Your task to perform on an android device: star an email in the gmail app Image 0: 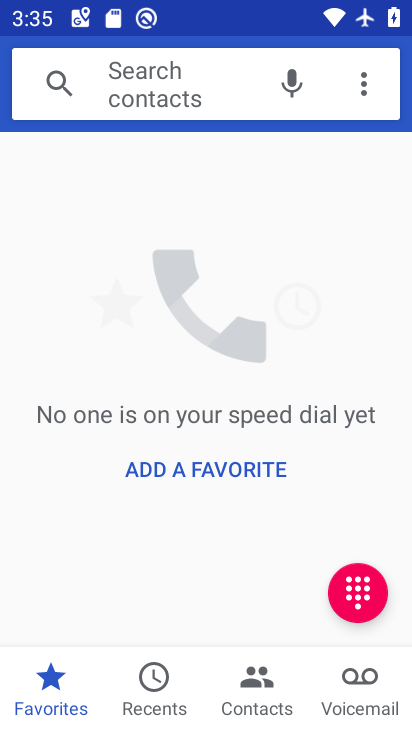
Step 0: press home button
Your task to perform on an android device: star an email in the gmail app Image 1: 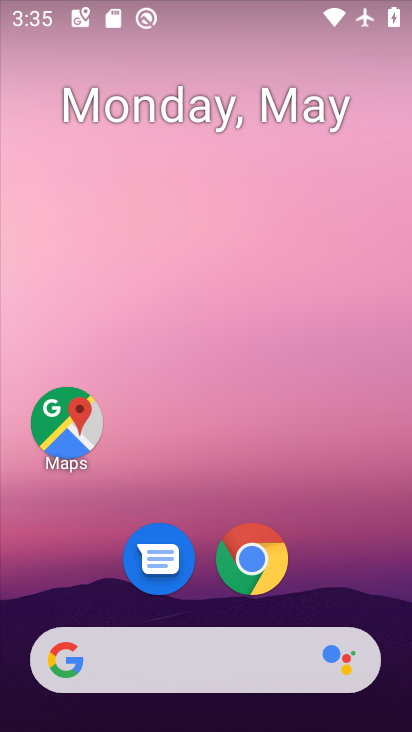
Step 1: drag from (297, 597) to (287, 148)
Your task to perform on an android device: star an email in the gmail app Image 2: 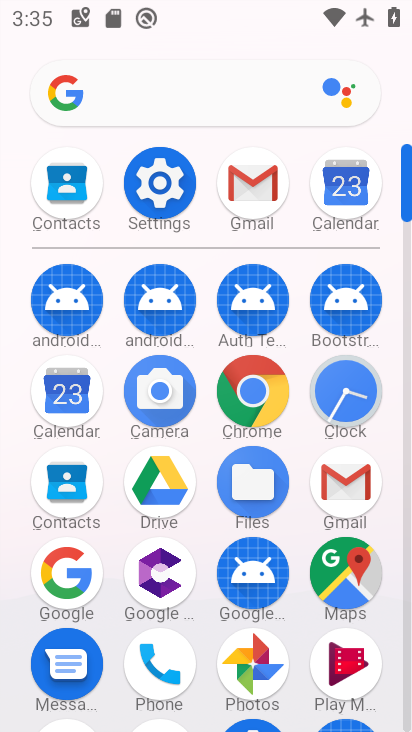
Step 2: click (348, 479)
Your task to perform on an android device: star an email in the gmail app Image 3: 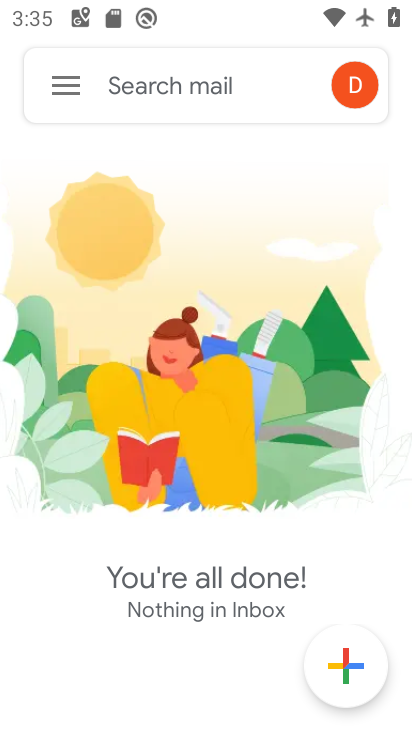
Step 3: click (69, 90)
Your task to perform on an android device: star an email in the gmail app Image 4: 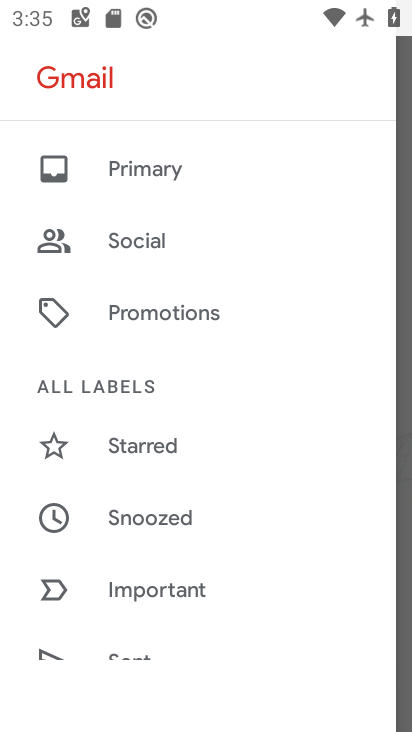
Step 4: drag from (234, 206) to (228, 542)
Your task to perform on an android device: star an email in the gmail app Image 5: 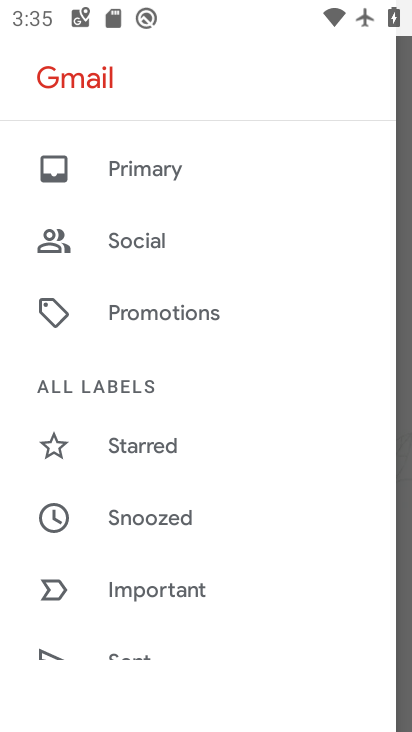
Step 5: drag from (190, 569) to (228, 287)
Your task to perform on an android device: star an email in the gmail app Image 6: 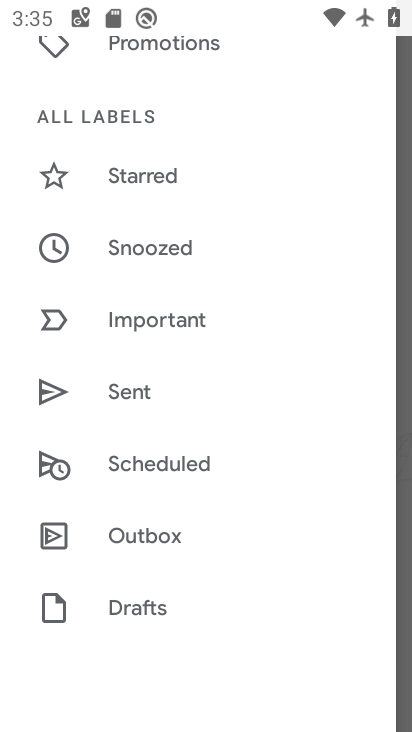
Step 6: drag from (181, 542) to (222, 233)
Your task to perform on an android device: star an email in the gmail app Image 7: 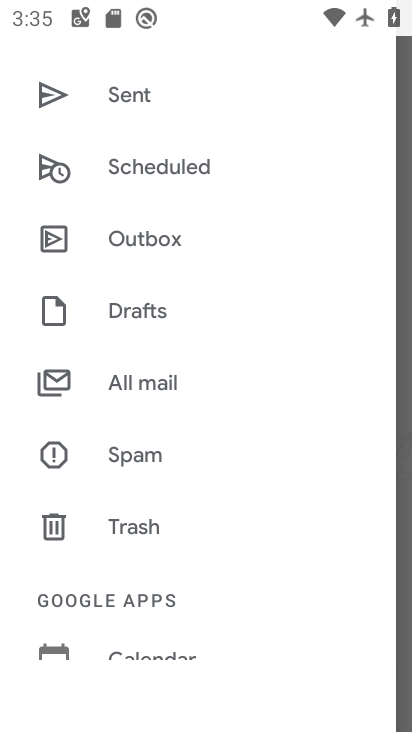
Step 7: click (154, 392)
Your task to perform on an android device: star an email in the gmail app Image 8: 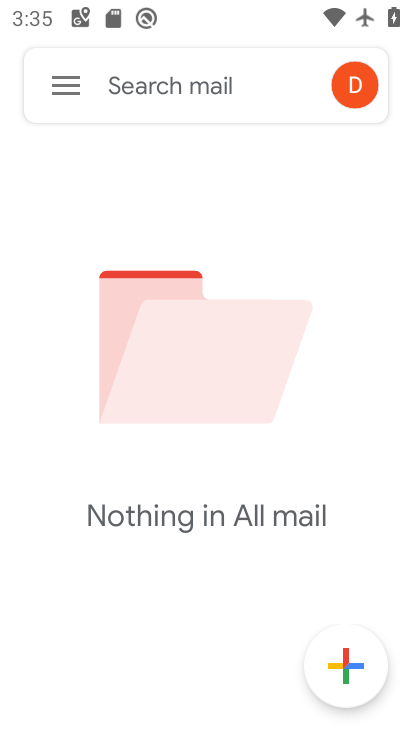
Step 8: task complete